Your task to perform on an android device: What's the weather? Image 0: 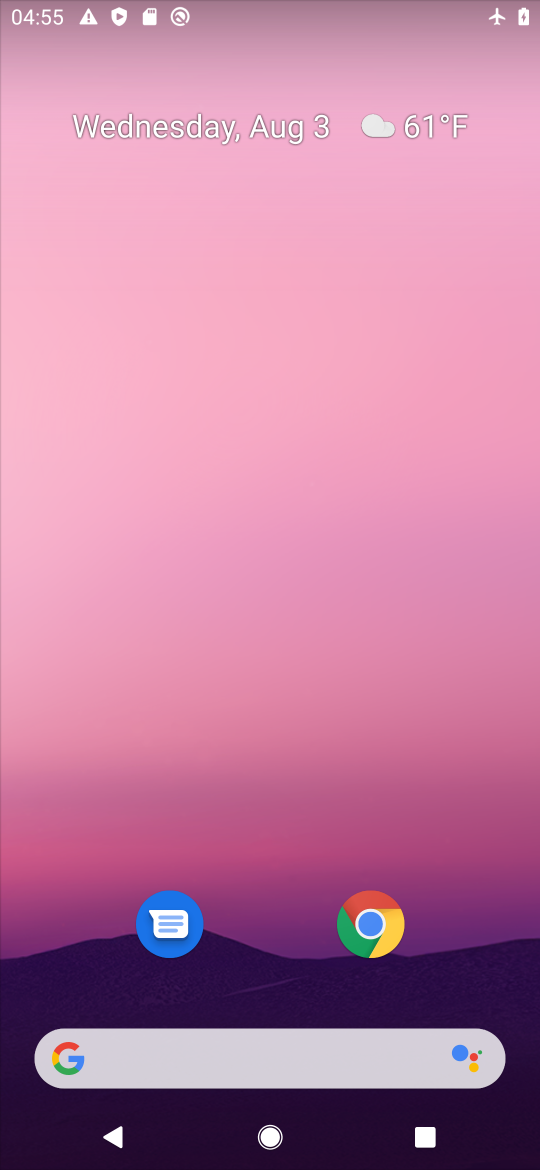
Step 0: drag from (304, 922) to (314, 360)
Your task to perform on an android device: What's the weather? Image 1: 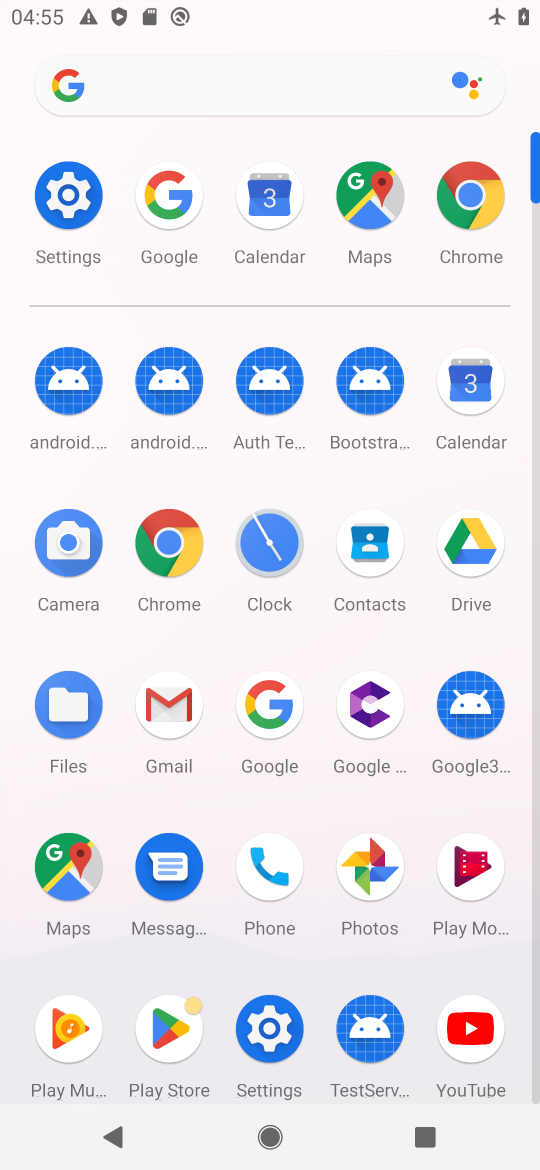
Step 1: click (266, 696)
Your task to perform on an android device: What's the weather? Image 2: 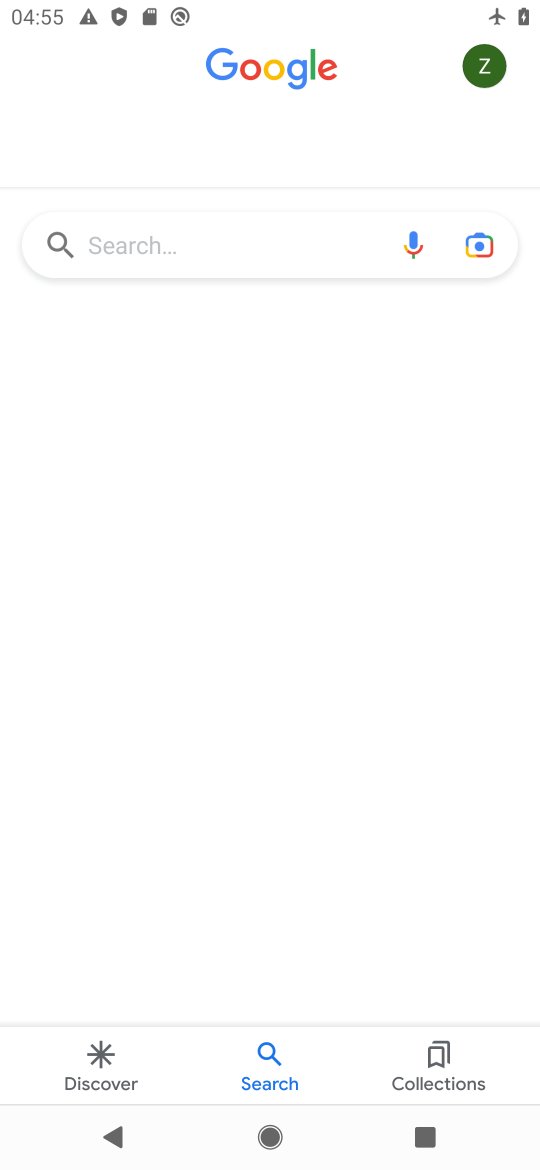
Step 2: click (152, 261)
Your task to perform on an android device: What's the weather? Image 3: 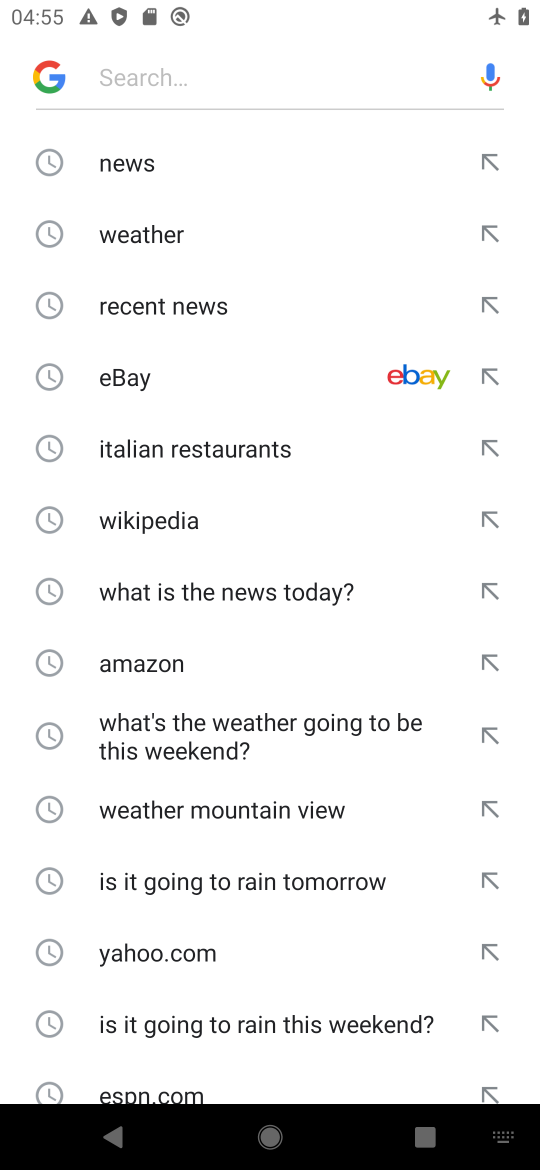
Step 3: click (200, 226)
Your task to perform on an android device: What's the weather? Image 4: 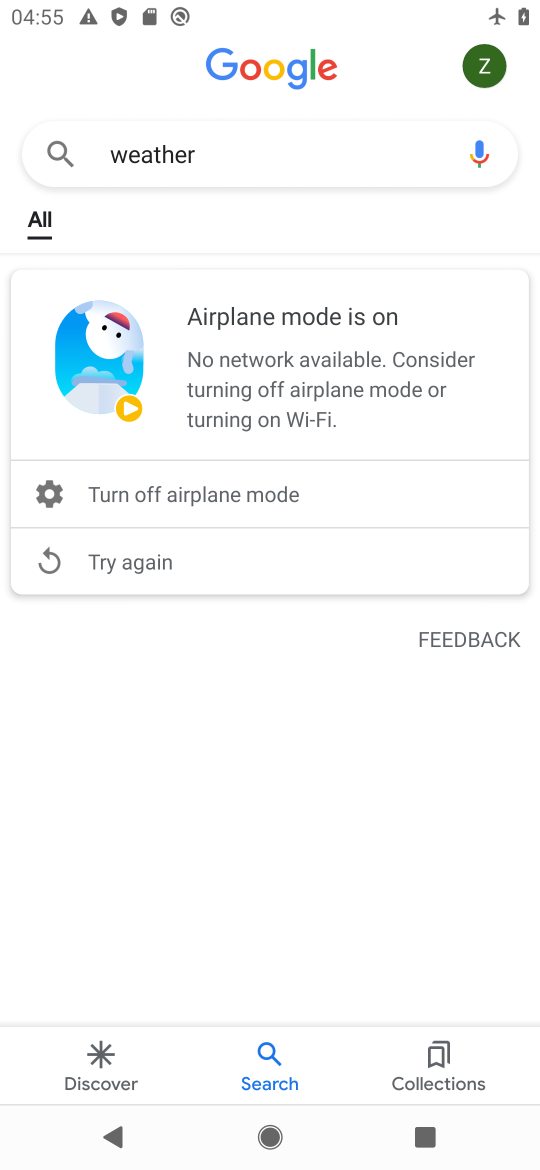
Step 4: task complete